Your task to perform on an android device: turn on location history Image 0: 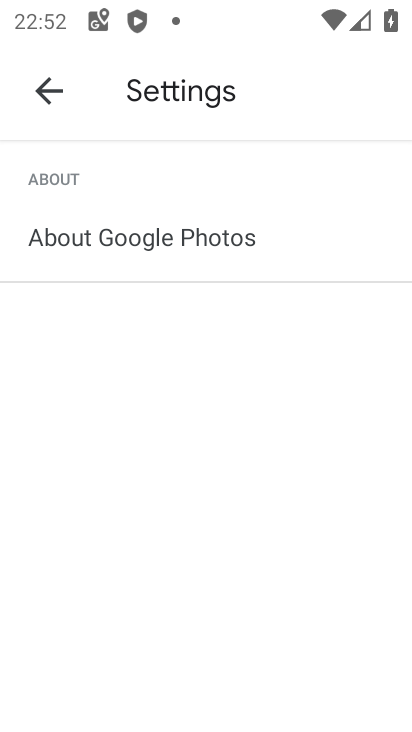
Step 0: press home button
Your task to perform on an android device: turn on location history Image 1: 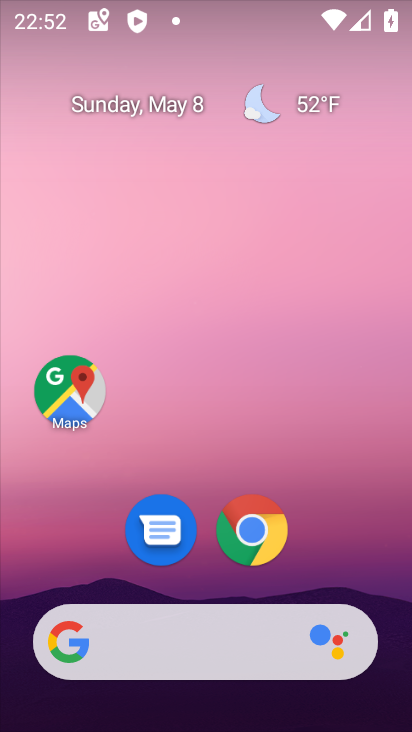
Step 1: drag from (371, 516) to (367, 168)
Your task to perform on an android device: turn on location history Image 2: 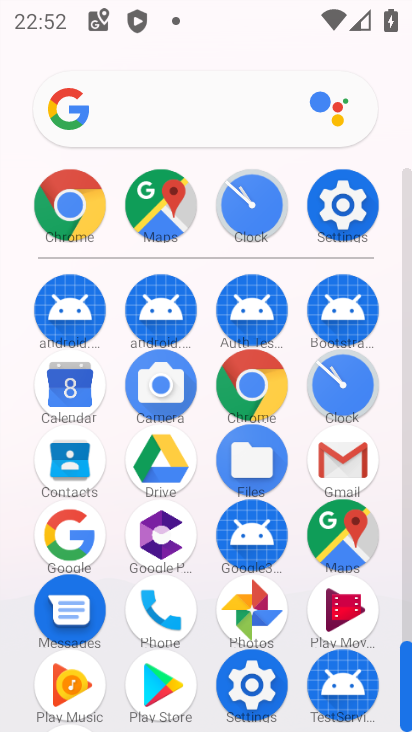
Step 2: click (340, 200)
Your task to perform on an android device: turn on location history Image 3: 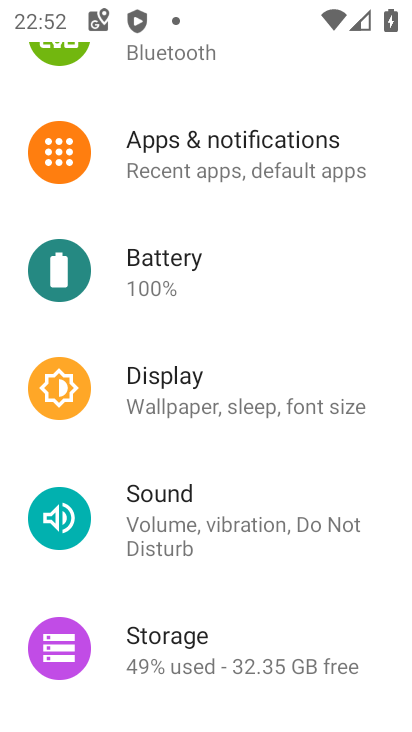
Step 3: drag from (295, 279) to (302, 223)
Your task to perform on an android device: turn on location history Image 4: 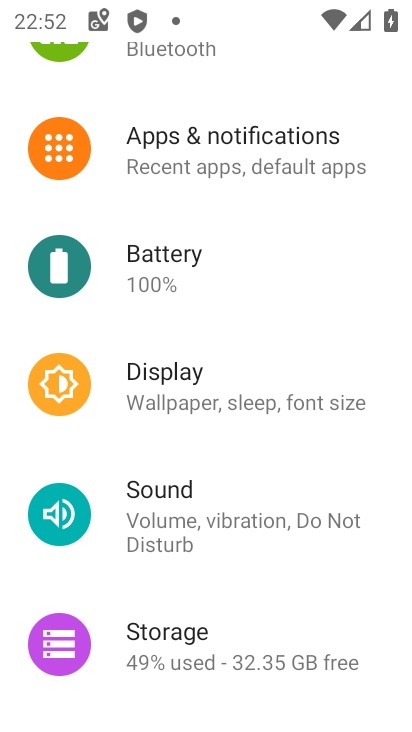
Step 4: drag from (256, 655) to (287, 255)
Your task to perform on an android device: turn on location history Image 5: 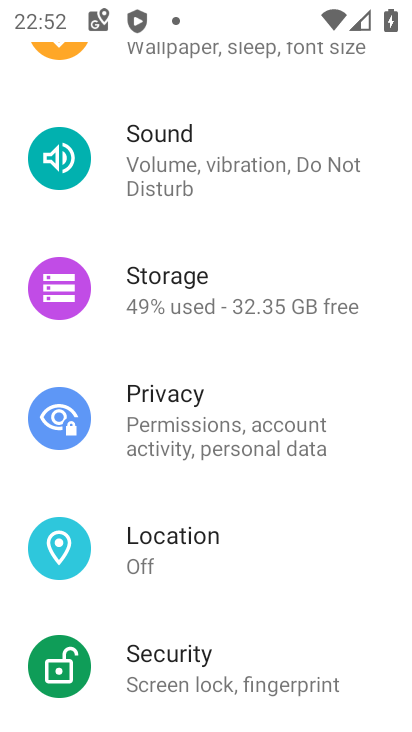
Step 5: click (196, 552)
Your task to perform on an android device: turn on location history Image 6: 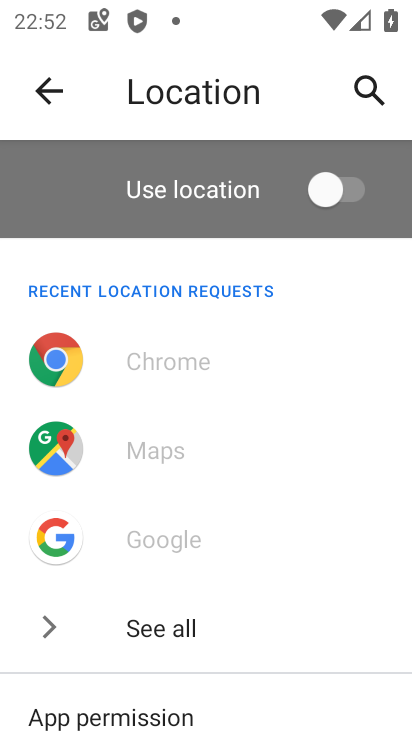
Step 6: drag from (279, 630) to (292, 270)
Your task to perform on an android device: turn on location history Image 7: 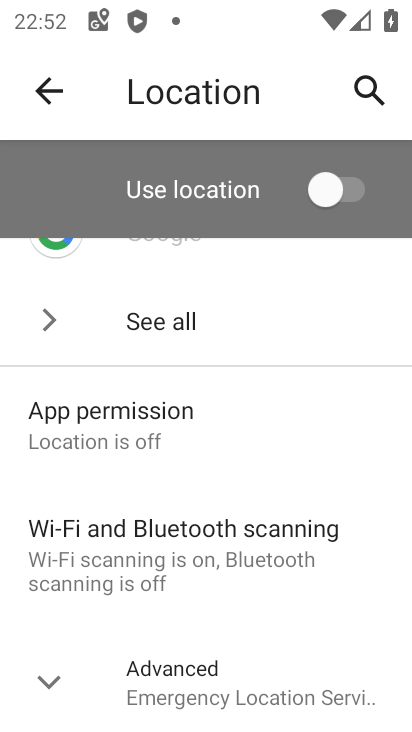
Step 7: click (262, 679)
Your task to perform on an android device: turn on location history Image 8: 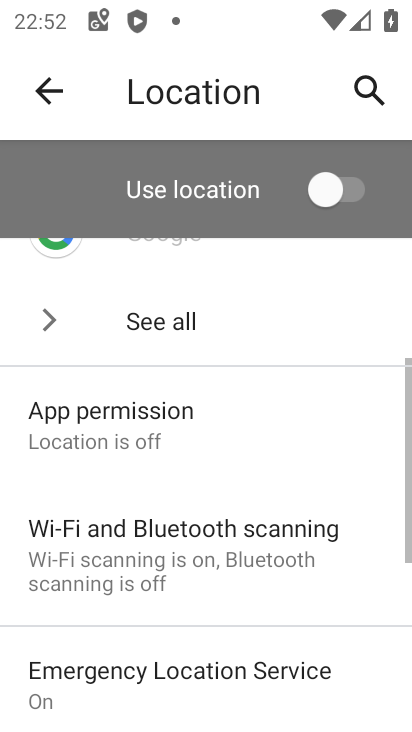
Step 8: drag from (292, 679) to (295, 288)
Your task to perform on an android device: turn on location history Image 9: 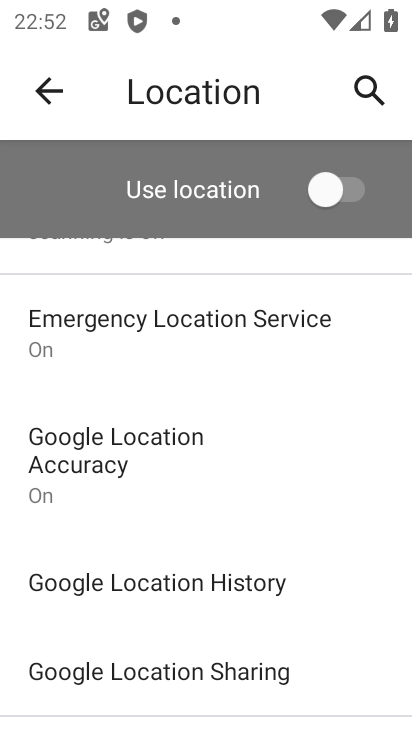
Step 9: click (121, 591)
Your task to perform on an android device: turn on location history Image 10: 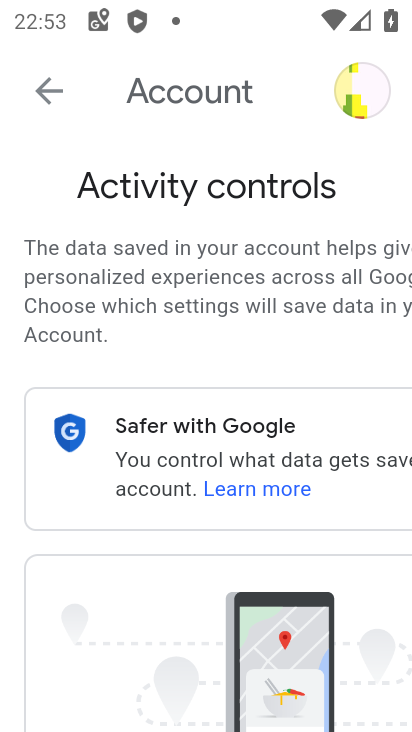
Step 10: drag from (150, 618) to (146, 165)
Your task to perform on an android device: turn on location history Image 11: 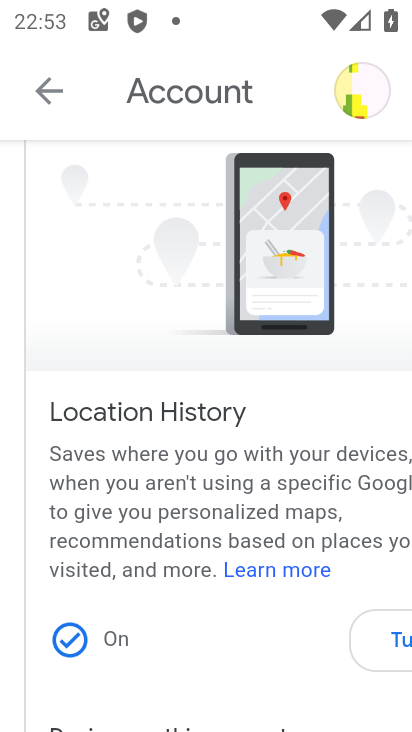
Step 11: drag from (196, 622) to (112, 299)
Your task to perform on an android device: turn on location history Image 12: 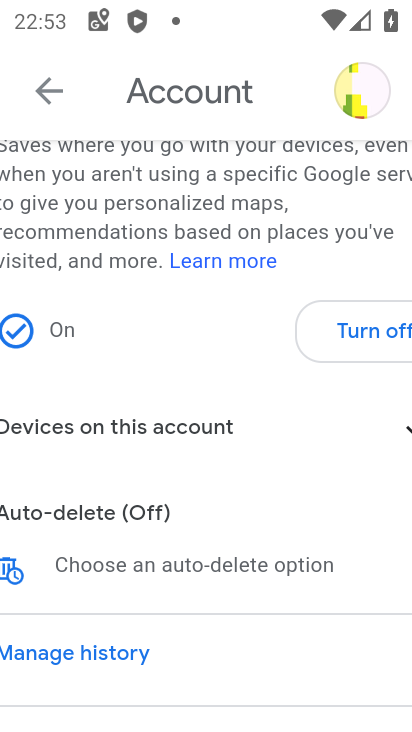
Step 12: click (341, 346)
Your task to perform on an android device: turn on location history Image 13: 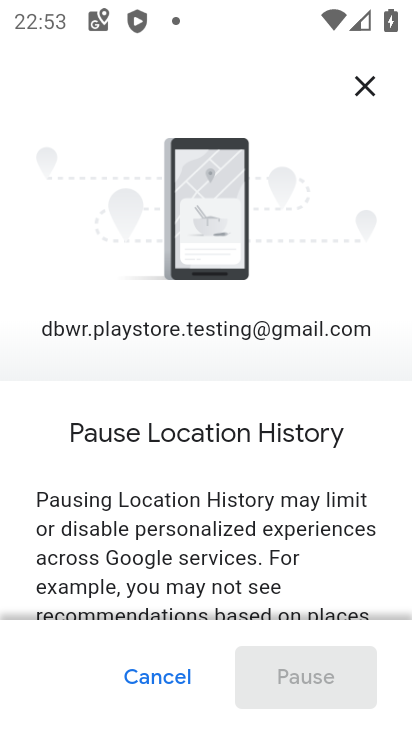
Step 13: task complete